Your task to perform on an android device: Toggle the flashlight Image 0: 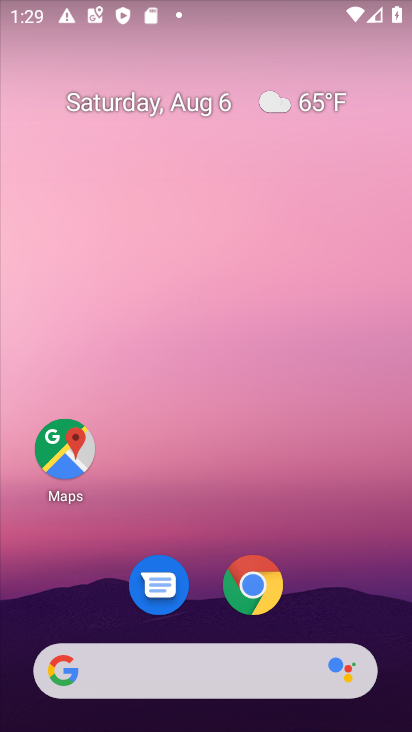
Step 0: drag from (204, 500) to (253, 4)
Your task to perform on an android device: Toggle the flashlight Image 1: 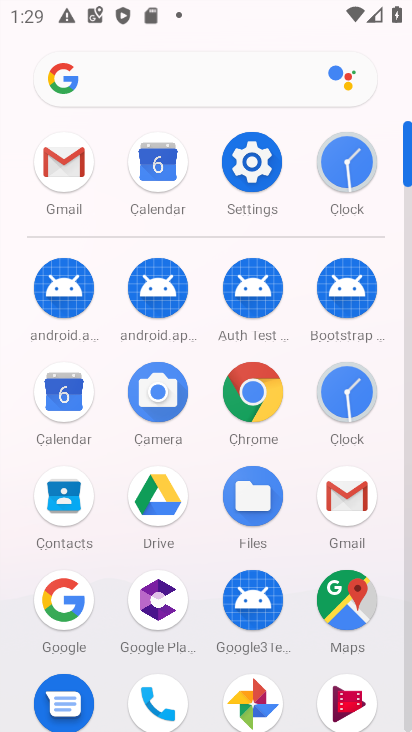
Step 1: click (245, 169)
Your task to perform on an android device: Toggle the flashlight Image 2: 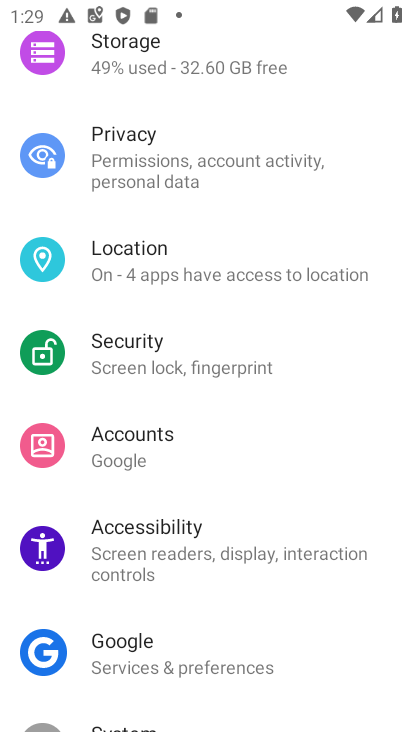
Step 2: drag from (237, 122) to (211, 571)
Your task to perform on an android device: Toggle the flashlight Image 3: 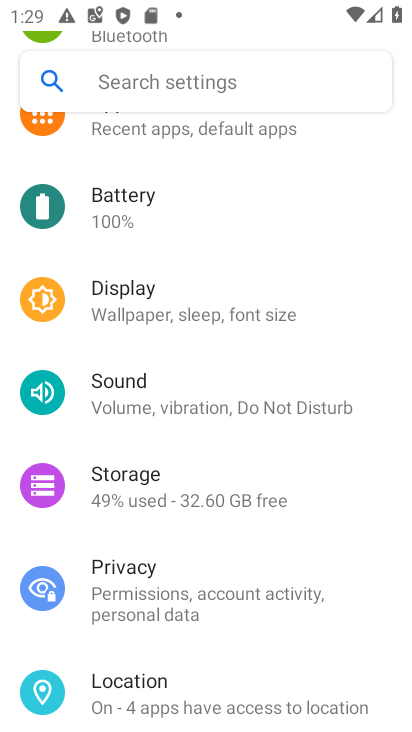
Step 3: drag from (212, 246) to (230, 599)
Your task to perform on an android device: Toggle the flashlight Image 4: 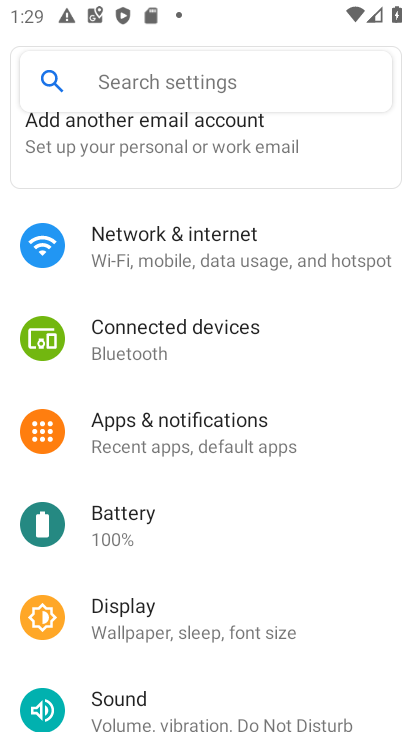
Step 4: drag from (229, 191) to (238, 520)
Your task to perform on an android device: Toggle the flashlight Image 5: 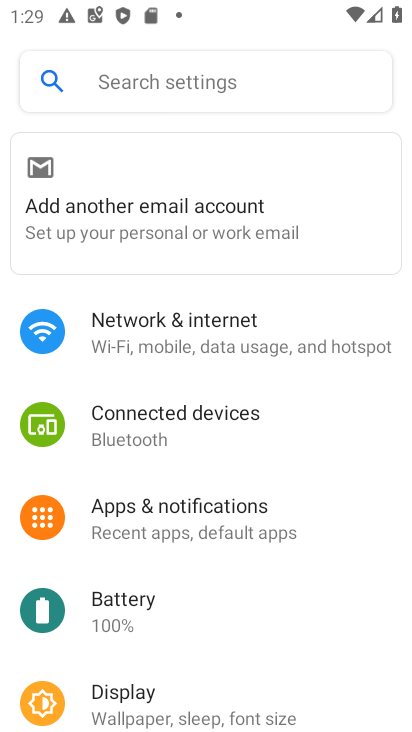
Step 5: click (253, 76)
Your task to perform on an android device: Toggle the flashlight Image 6: 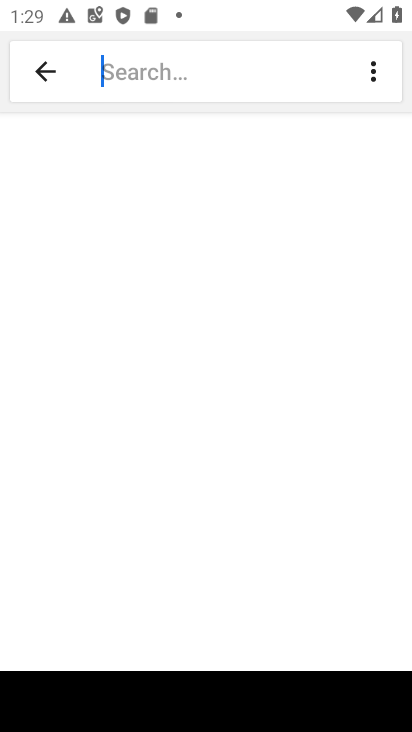
Step 6: type "Flashlight"
Your task to perform on an android device: Toggle the flashlight Image 7: 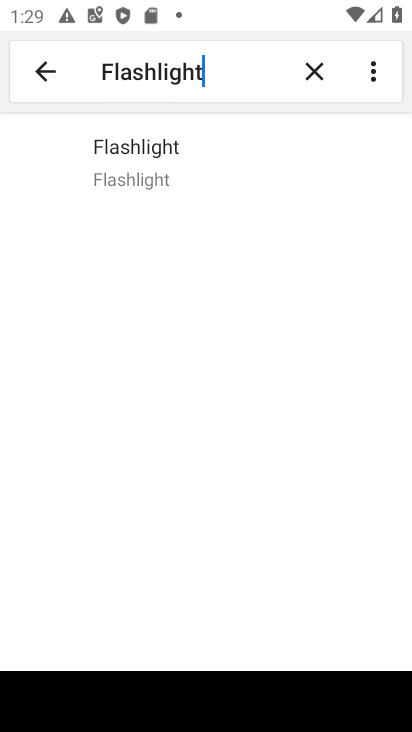
Step 7: click (145, 179)
Your task to perform on an android device: Toggle the flashlight Image 8: 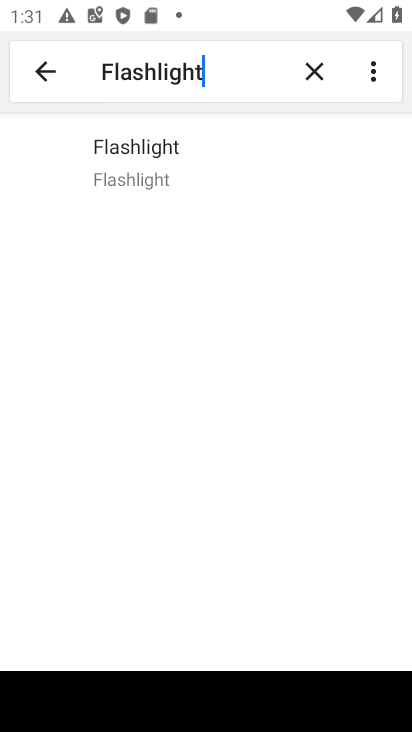
Step 8: click (159, 163)
Your task to perform on an android device: Toggle the flashlight Image 9: 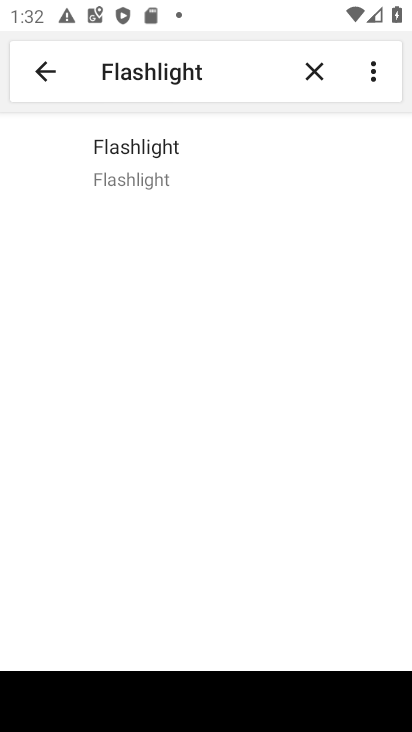
Step 9: task complete